Your task to perform on an android device: Turn off the flashlight Image 0: 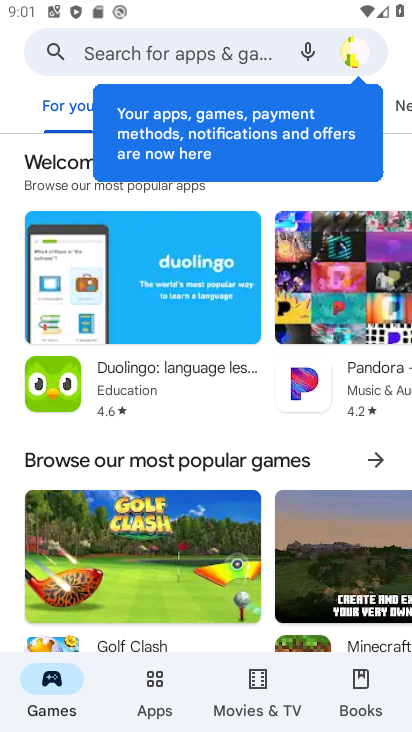
Step 0: press home button
Your task to perform on an android device: Turn off the flashlight Image 1: 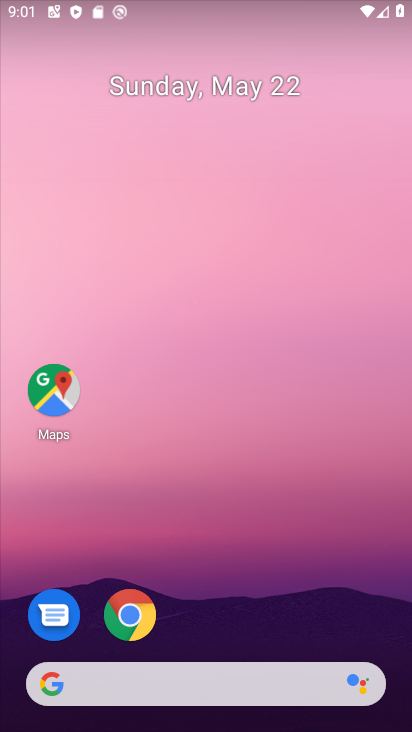
Step 1: drag from (176, 642) to (213, 298)
Your task to perform on an android device: Turn off the flashlight Image 2: 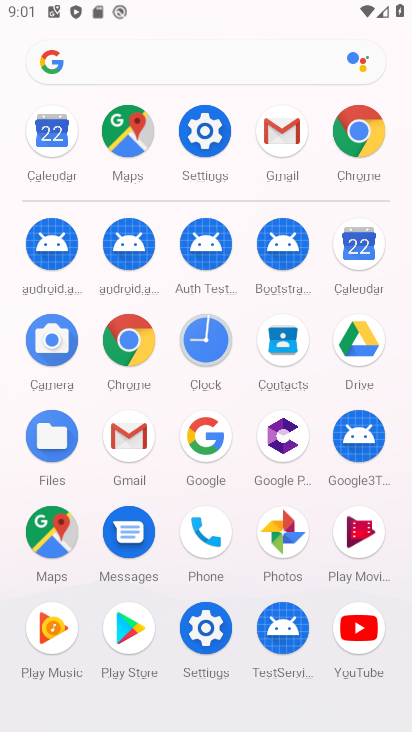
Step 2: click (208, 134)
Your task to perform on an android device: Turn off the flashlight Image 3: 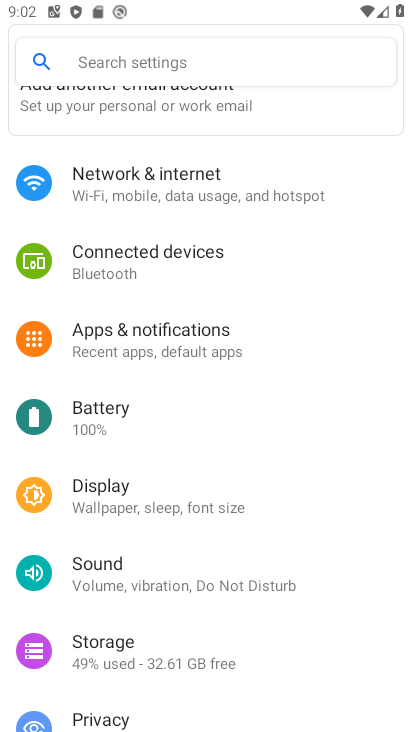
Step 3: task complete